Your task to perform on an android device: toggle airplane mode Image 0: 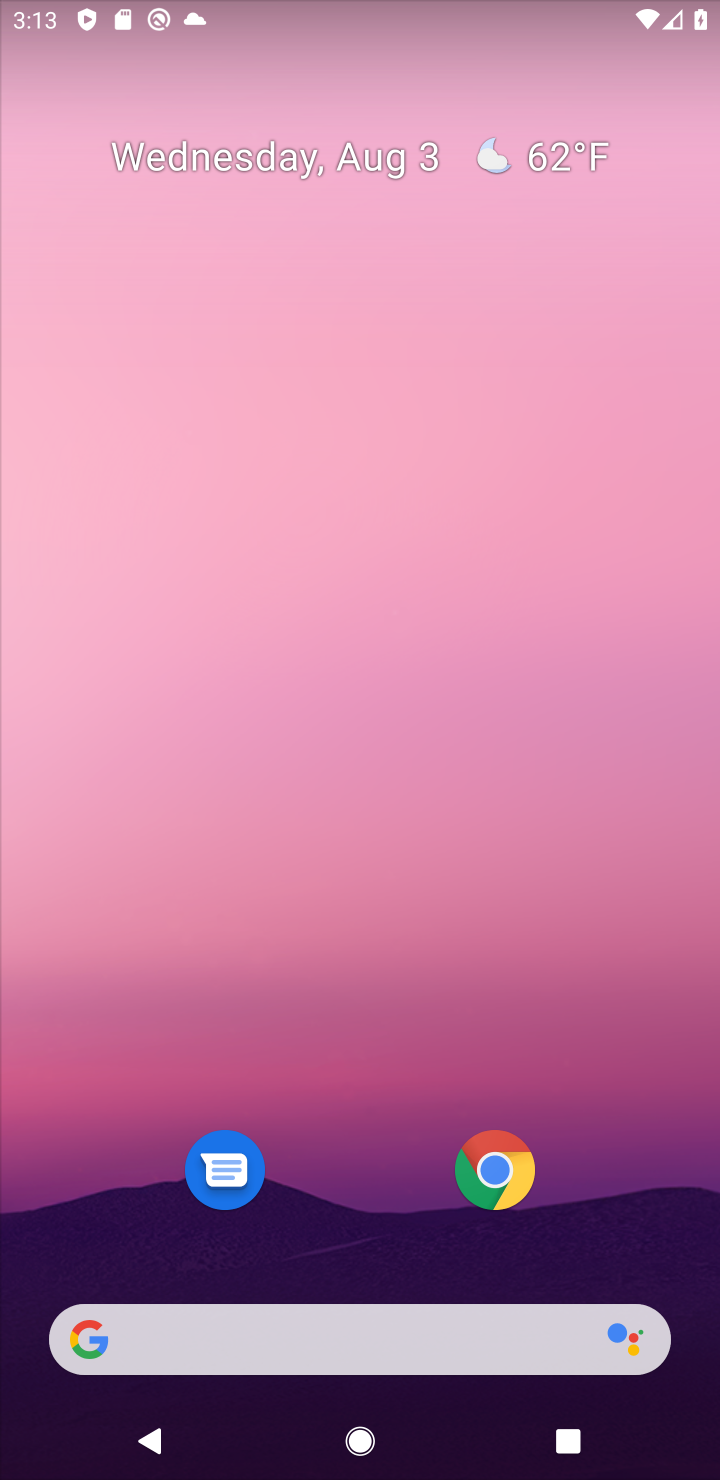
Step 0: drag from (315, 832) to (259, 257)
Your task to perform on an android device: toggle airplane mode Image 1: 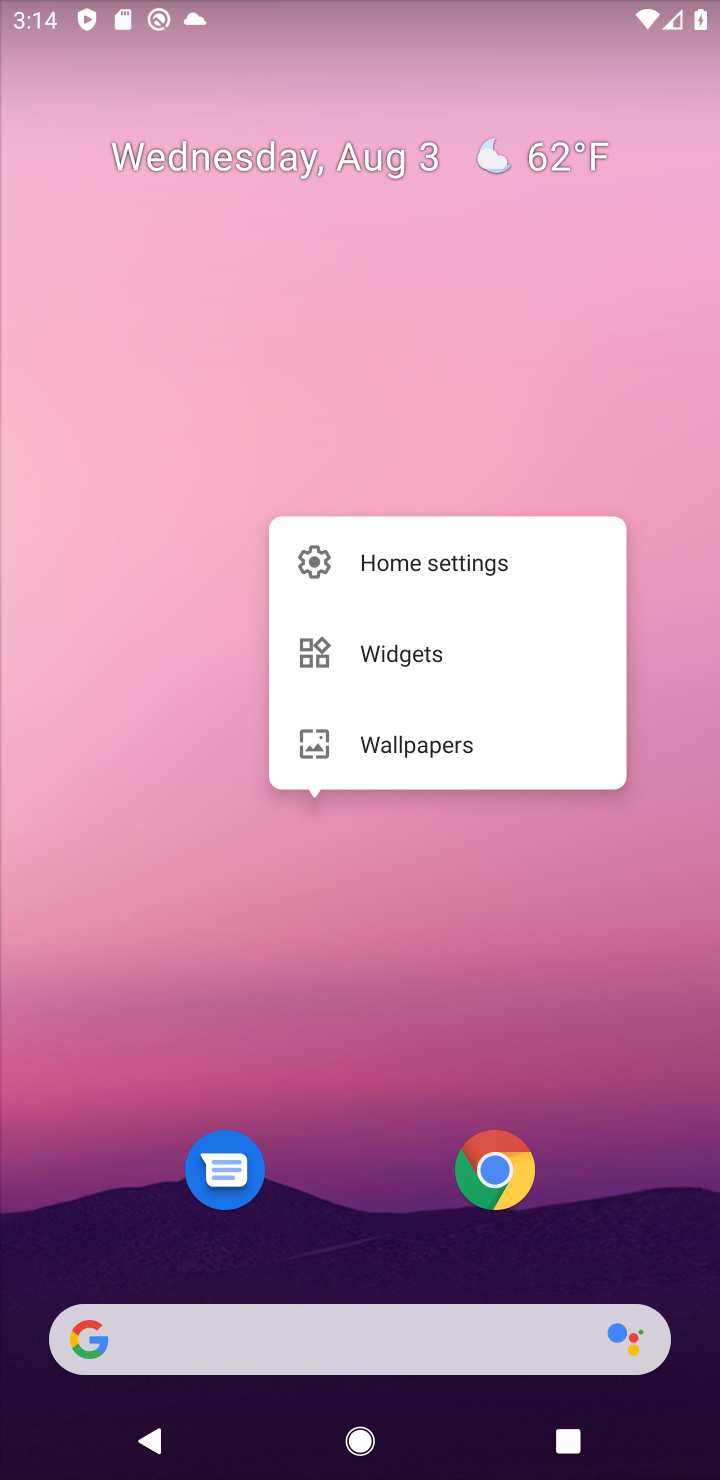
Step 1: click (369, 1214)
Your task to perform on an android device: toggle airplane mode Image 2: 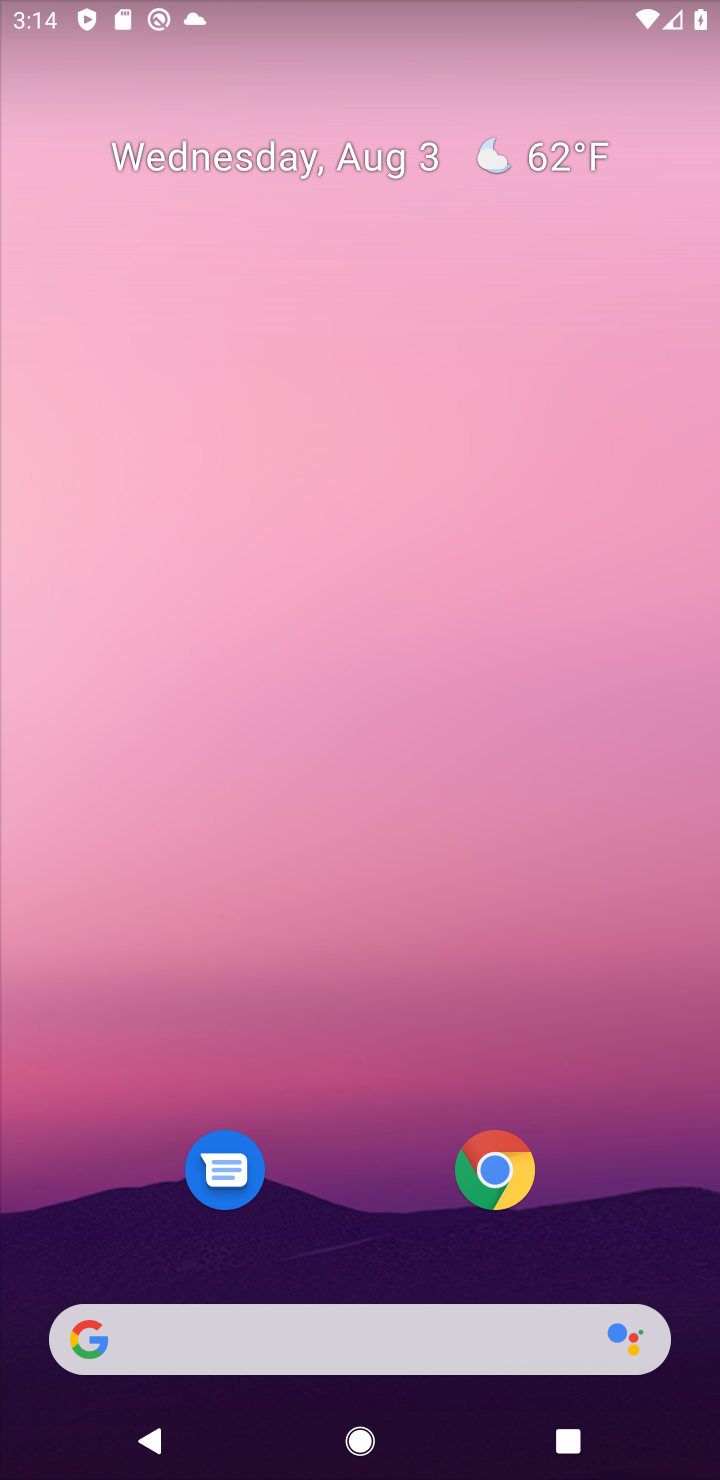
Step 2: drag from (303, 1125) to (467, 58)
Your task to perform on an android device: toggle airplane mode Image 3: 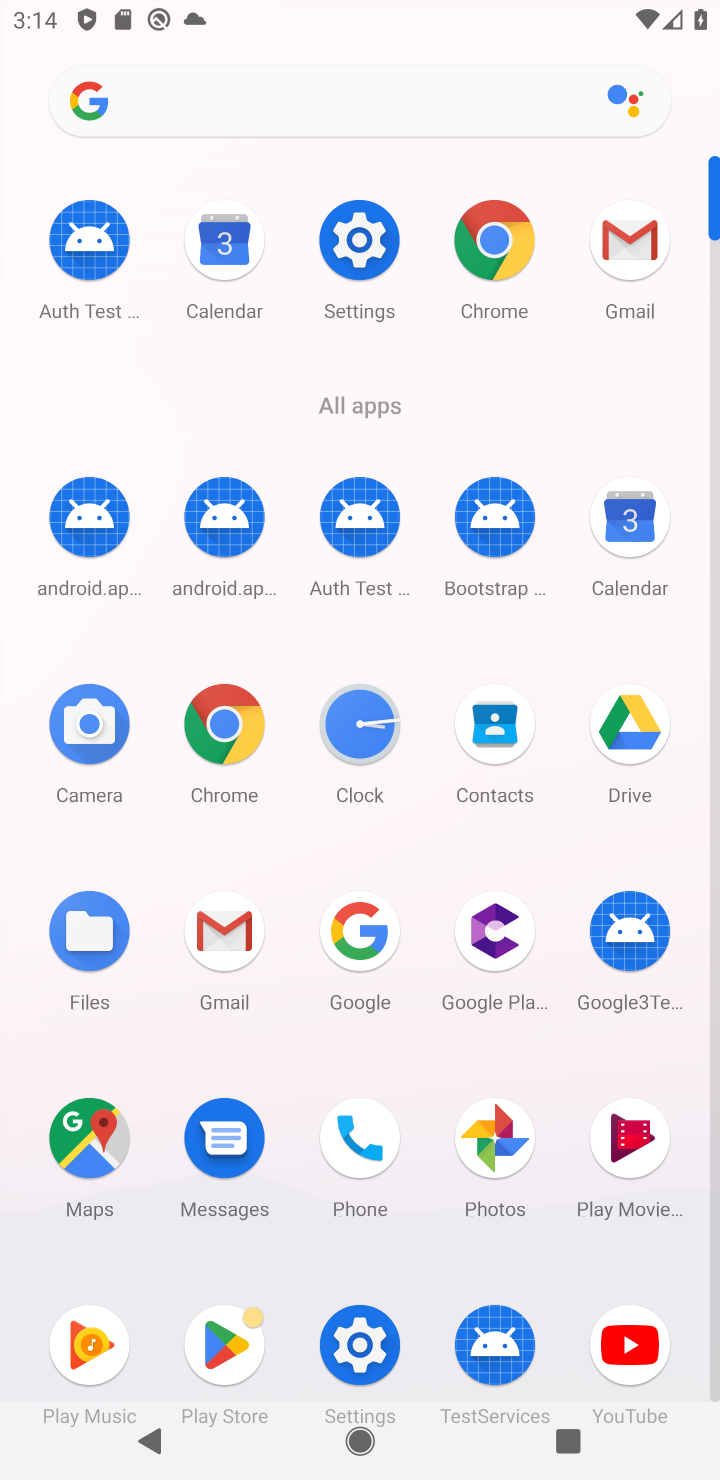
Step 3: click (359, 249)
Your task to perform on an android device: toggle airplane mode Image 4: 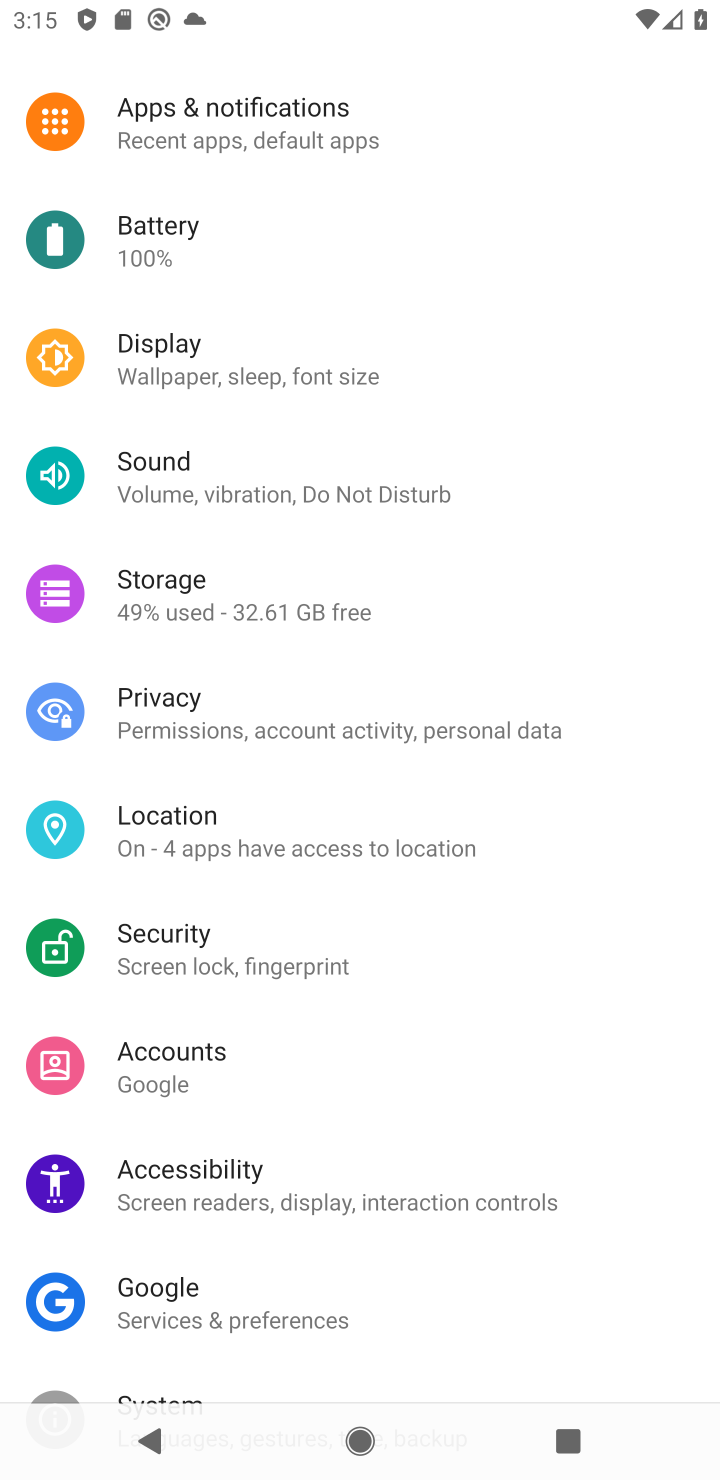
Step 4: drag from (250, 335) to (294, 773)
Your task to perform on an android device: toggle airplane mode Image 5: 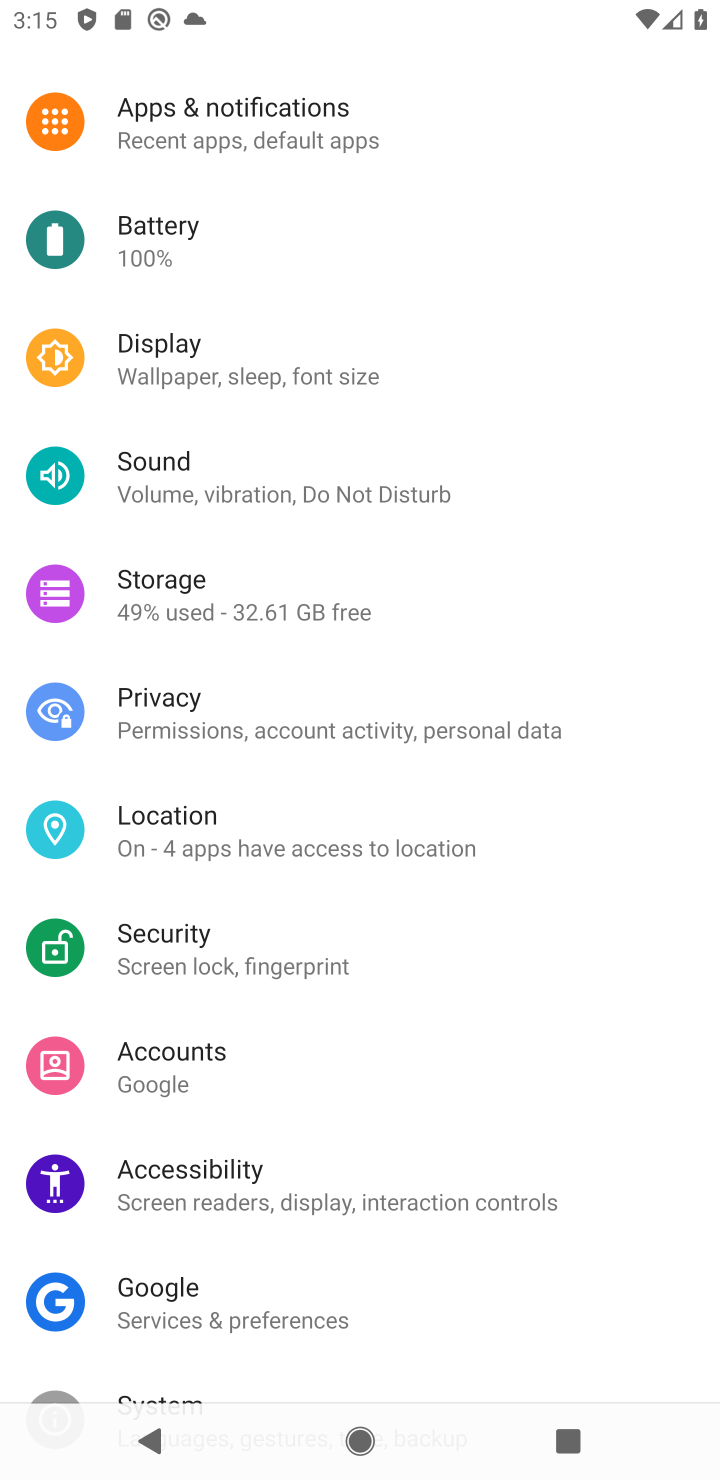
Step 5: drag from (290, 607) to (376, 1139)
Your task to perform on an android device: toggle airplane mode Image 6: 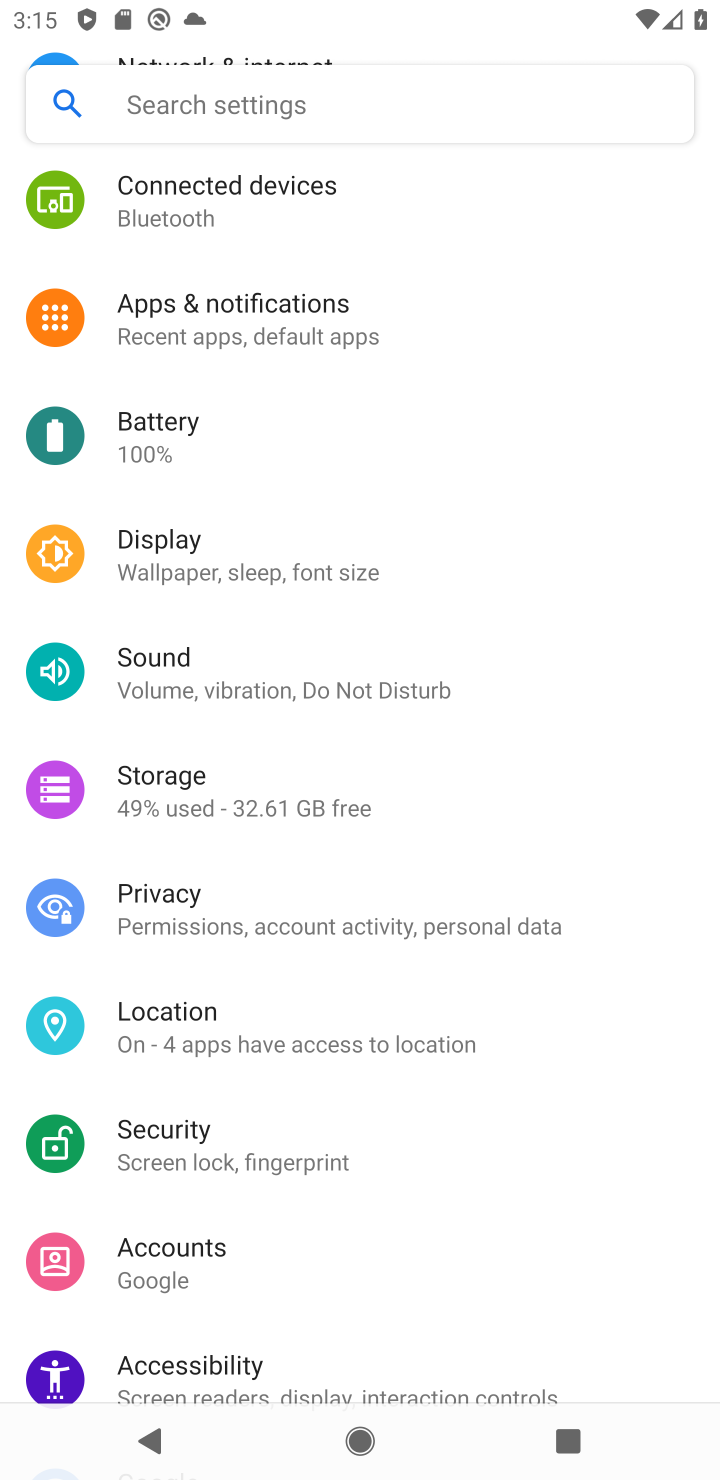
Step 6: click (405, 1437)
Your task to perform on an android device: toggle airplane mode Image 7: 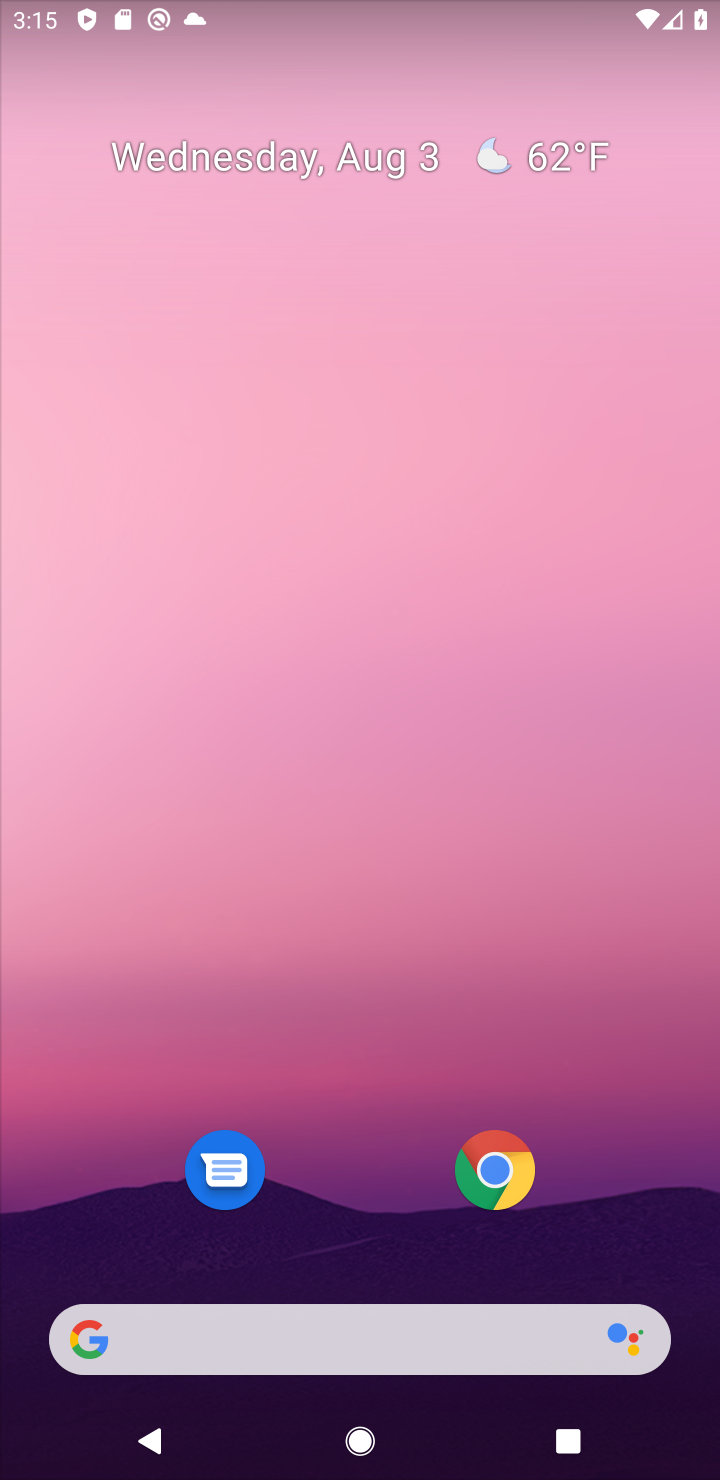
Step 7: drag from (310, 1087) to (308, 295)
Your task to perform on an android device: toggle airplane mode Image 8: 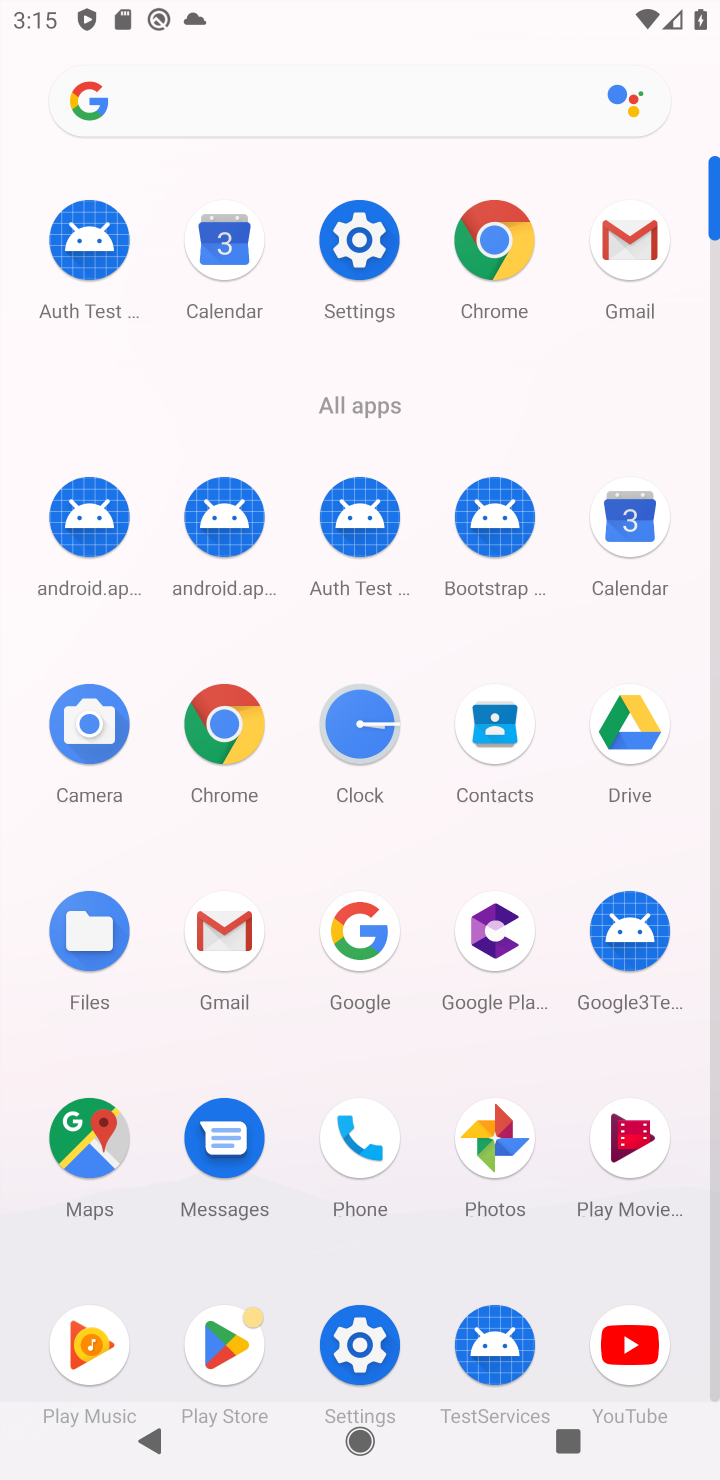
Step 8: click (359, 250)
Your task to perform on an android device: toggle airplane mode Image 9: 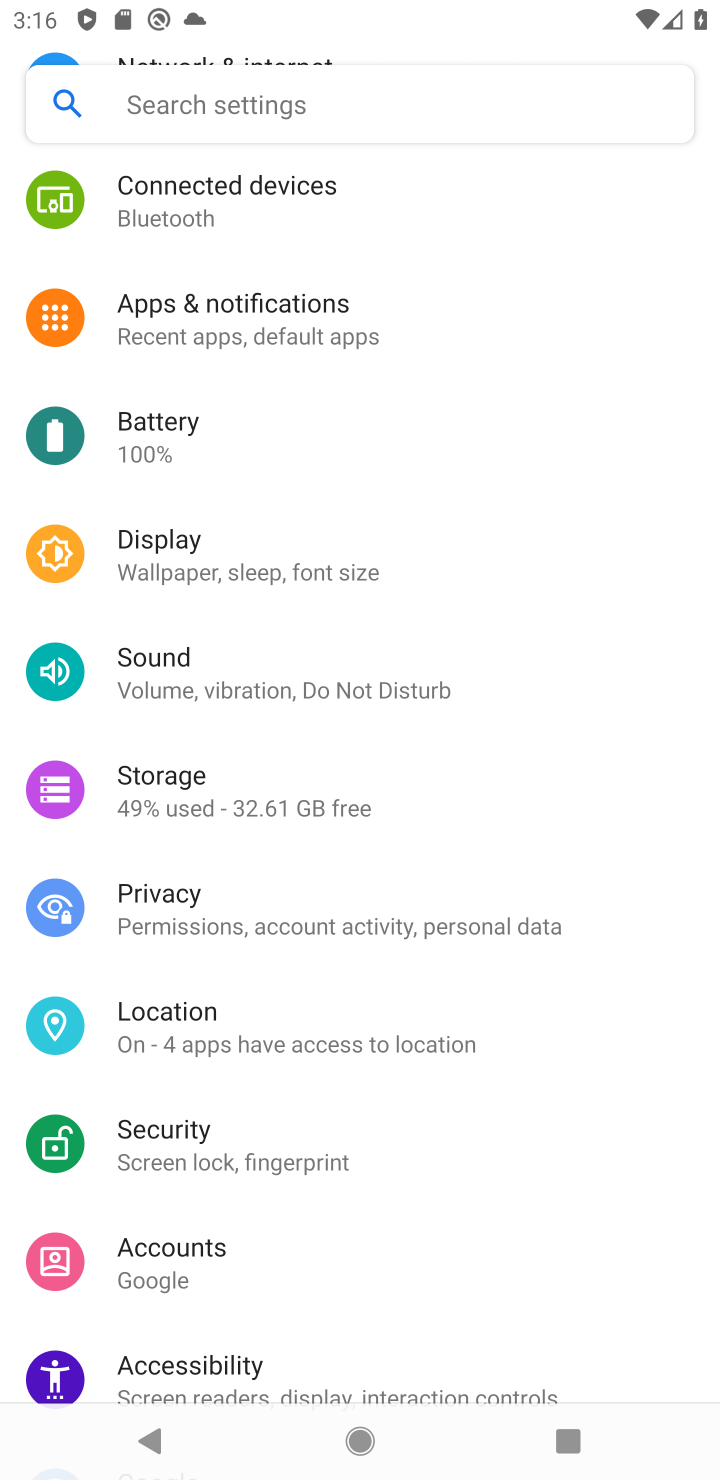
Step 9: drag from (263, 416) to (263, 1001)
Your task to perform on an android device: toggle airplane mode Image 10: 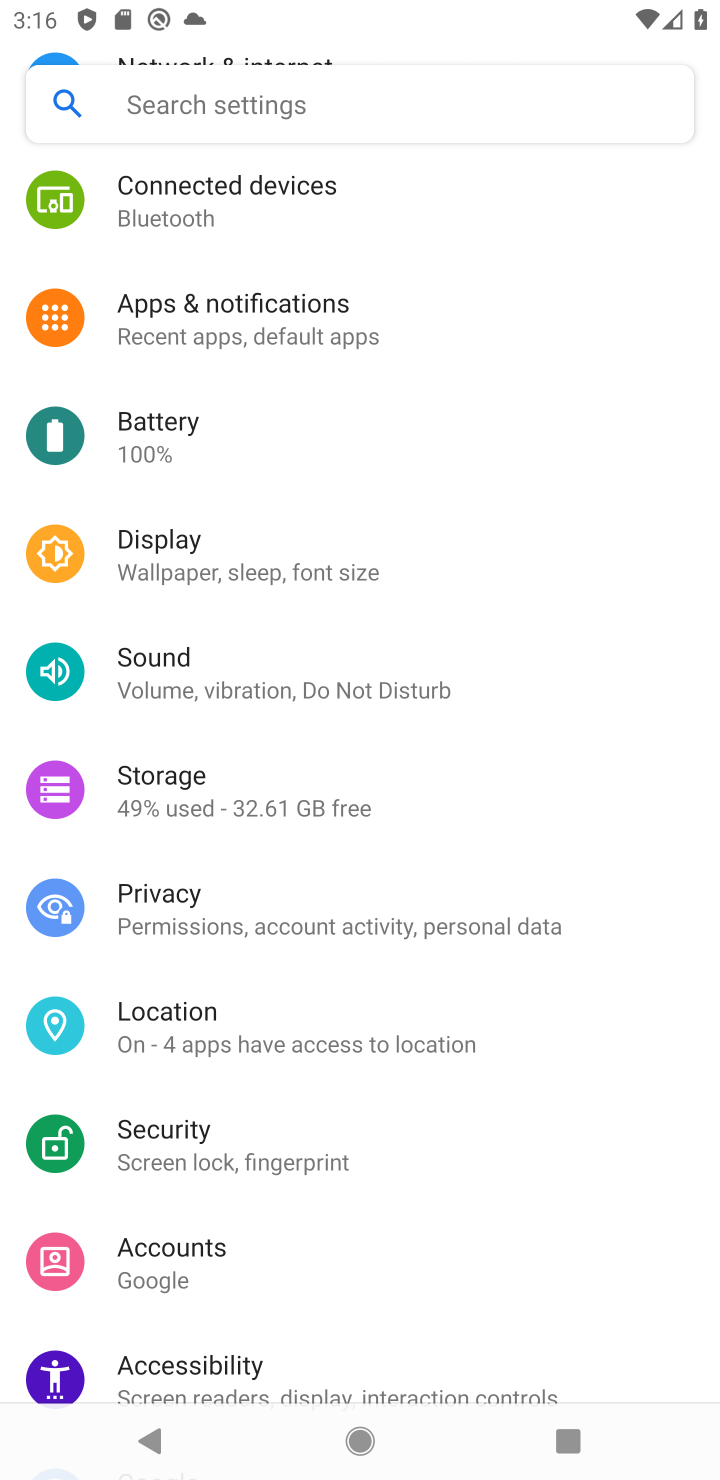
Step 10: drag from (290, 476) to (294, 1154)
Your task to perform on an android device: toggle airplane mode Image 11: 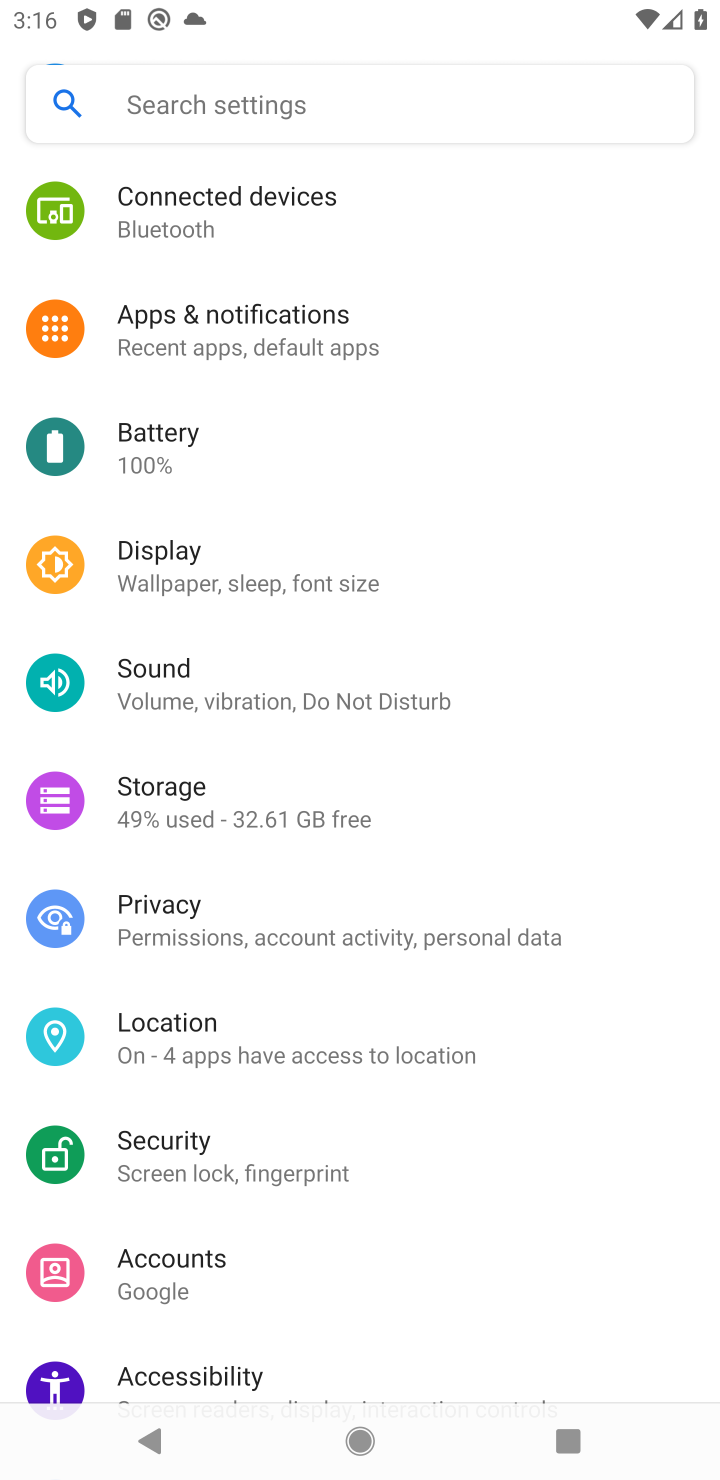
Step 11: drag from (311, 250) to (337, 1286)
Your task to perform on an android device: toggle airplane mode Image 12: 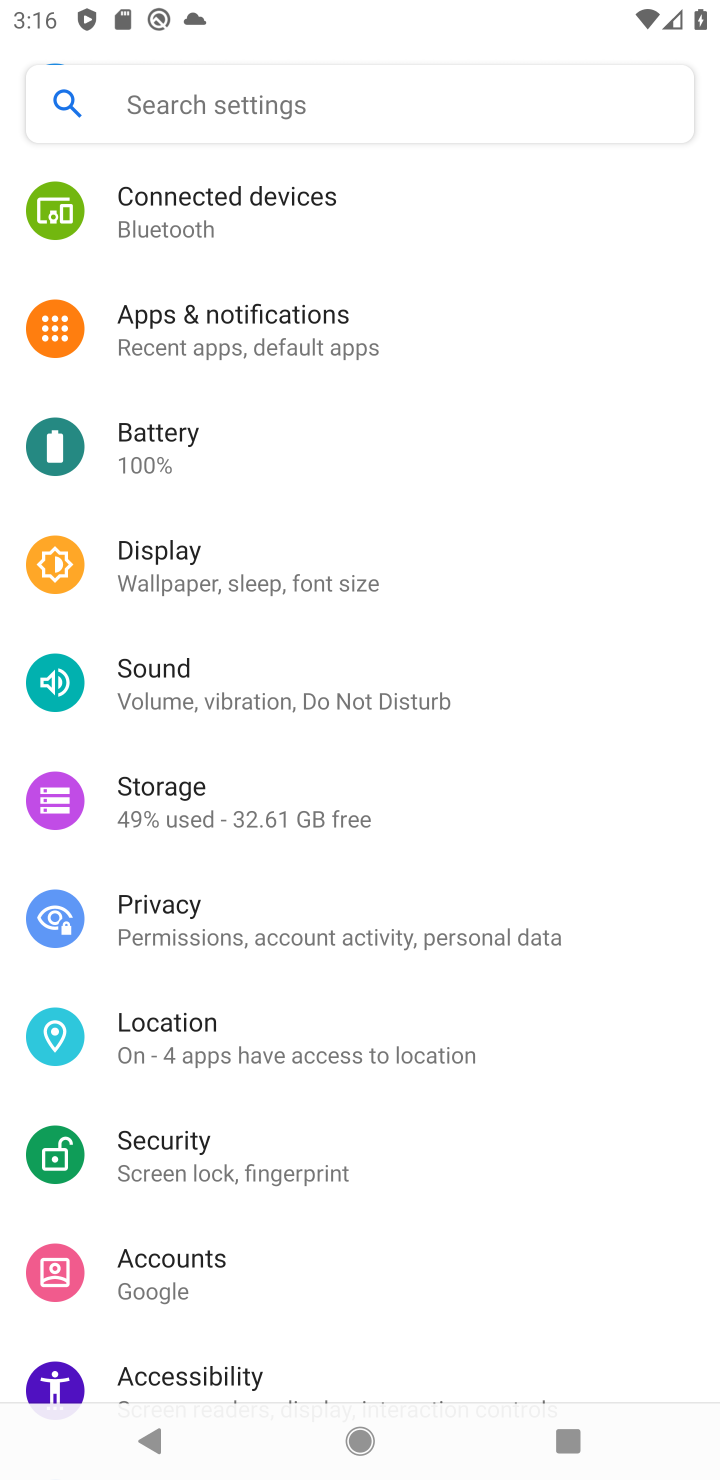
Step 12: click (311, 1121)
Your task to perform on an android device: toggle airplane mode Image 13: 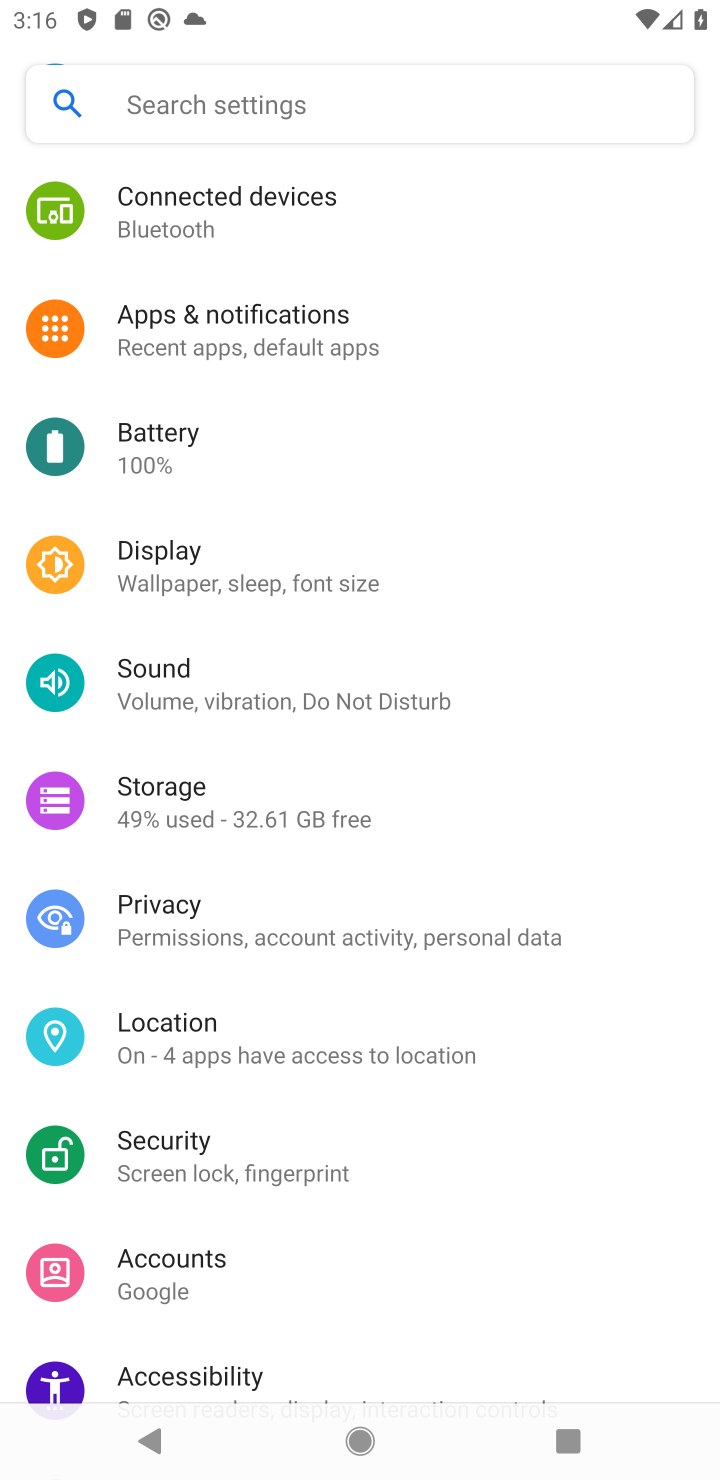
Step 13: drag from (347, 292) to (352, 1086)
Your task to perform on an android device: toggle airplane mode Image 14: 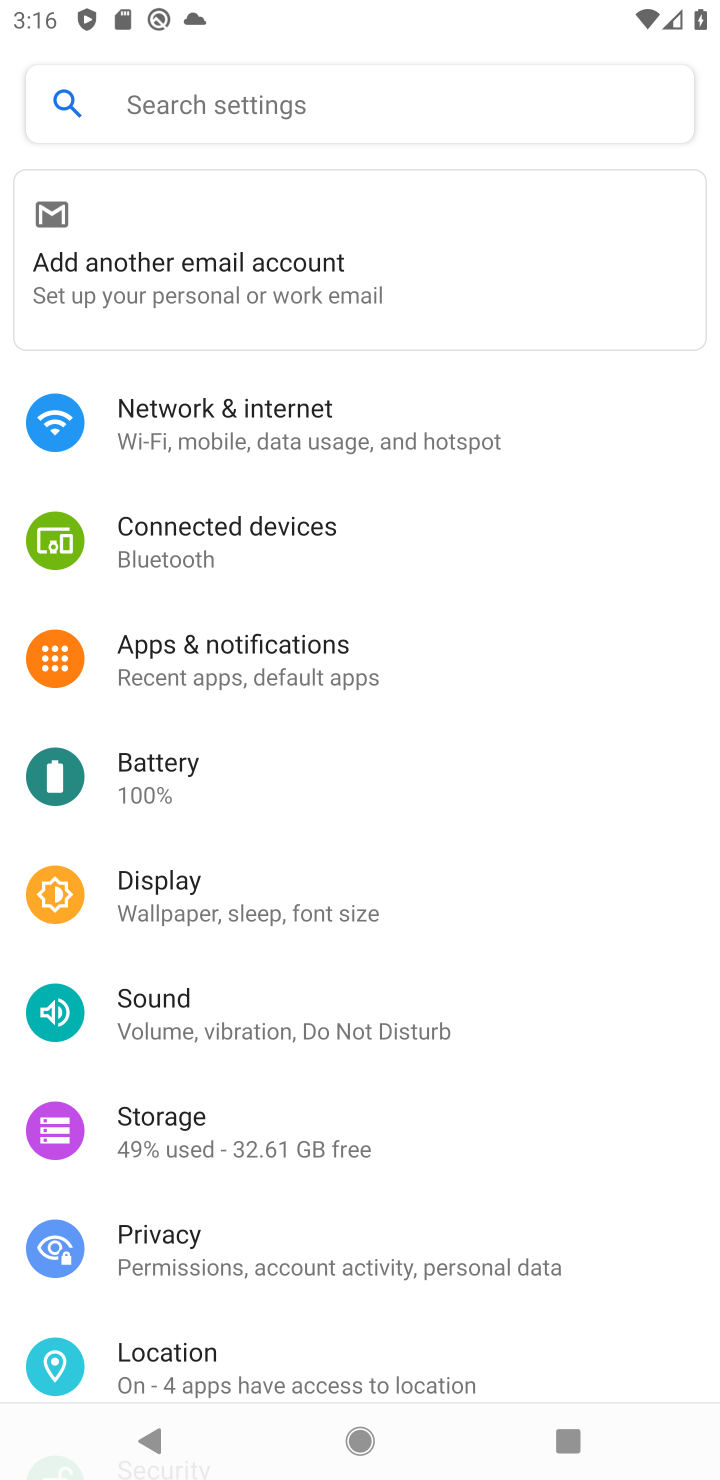
Step 14: click (187, 463)
Your task to perform on an android device: toggle airplane mode Image 15: 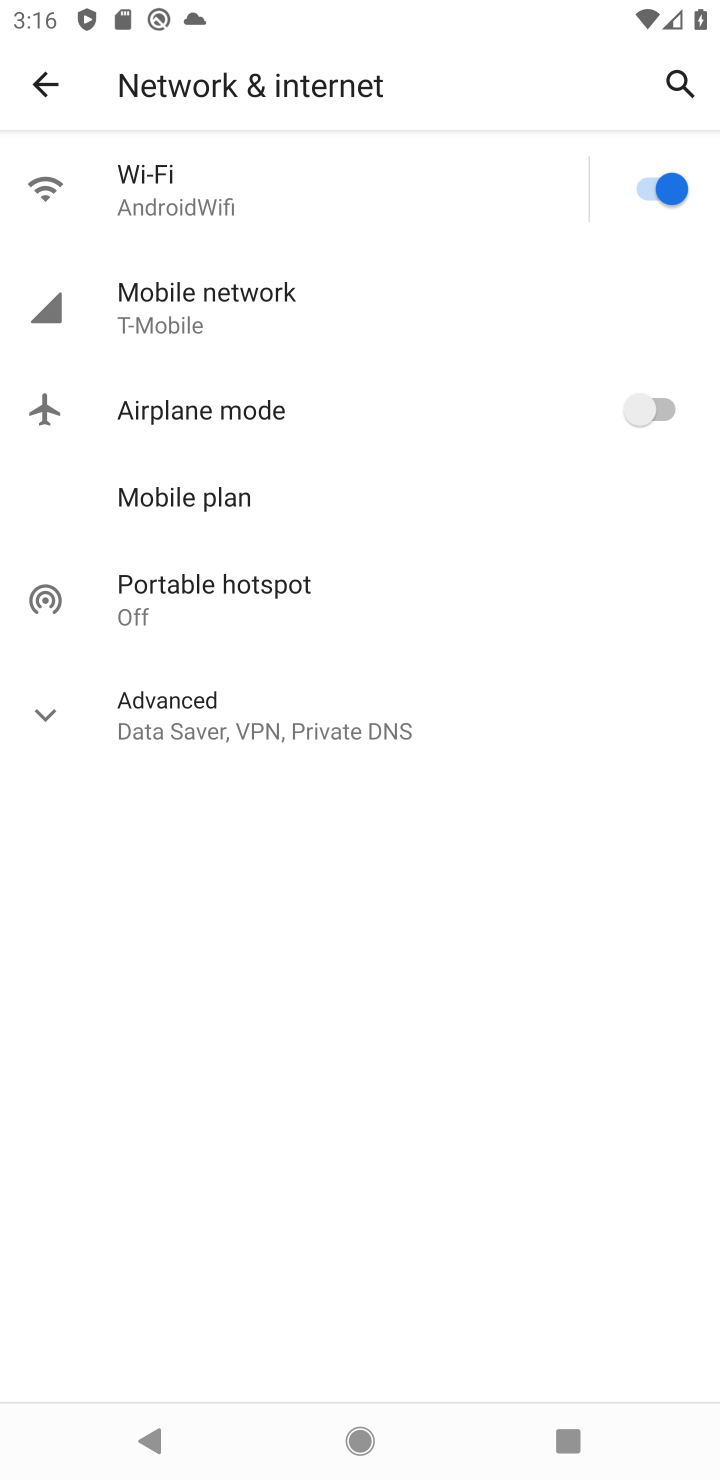
Step 15: click (653, 413)
Your task to perform on an android device: toggle airplane mode Image 16: 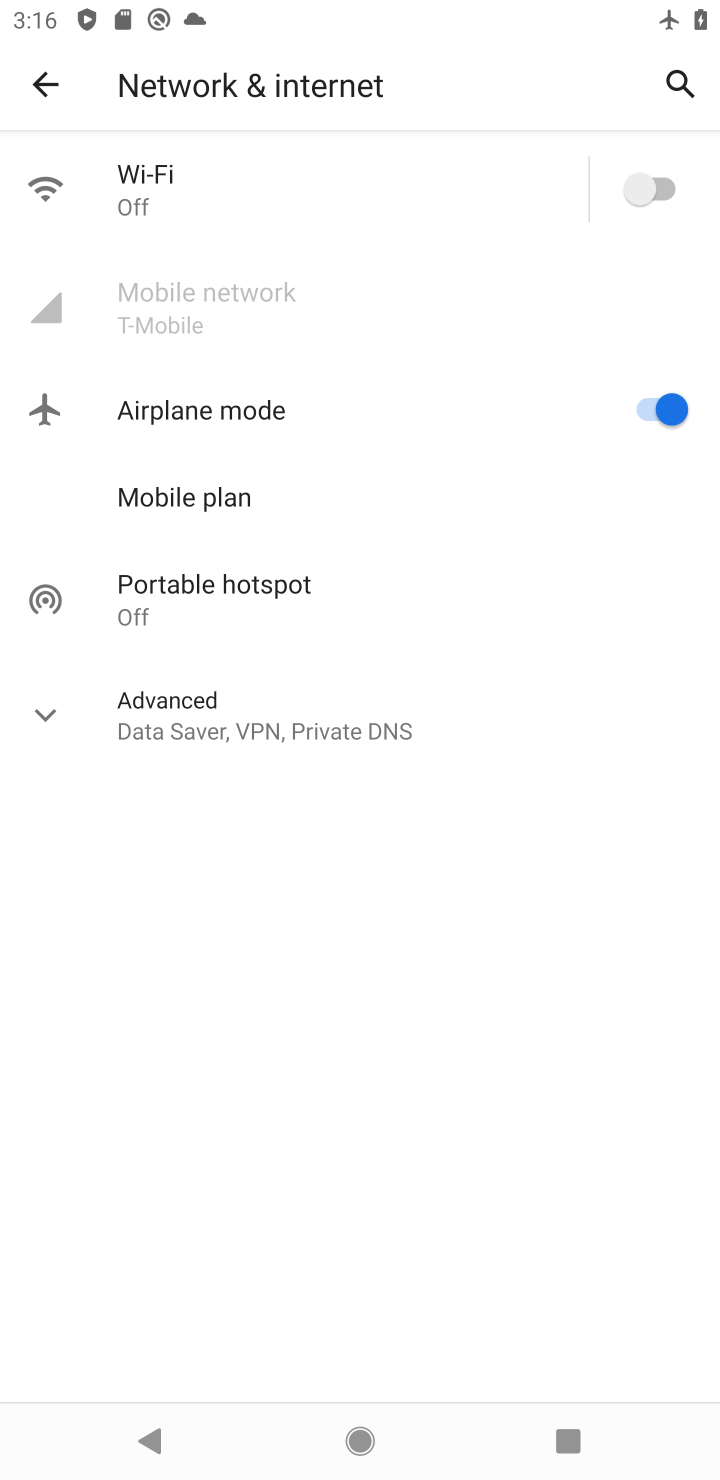
Step 16: task complete